Your task to perform on an android device: Is it going to rain this weekend? Image 0: 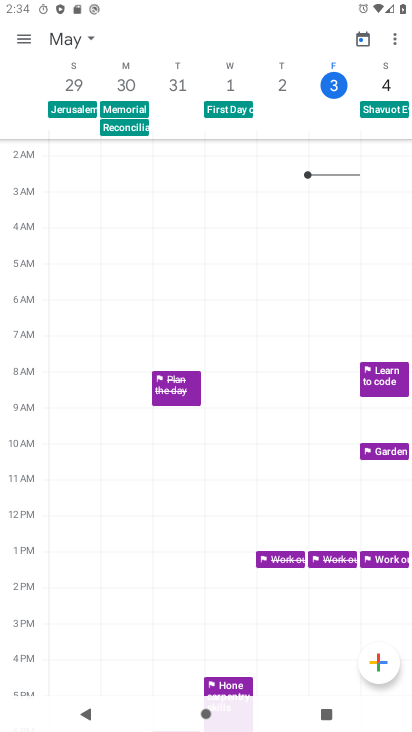
Step 0: press home button
Your task to perform on an android device: Is it going to rain this weekend? Image 1: 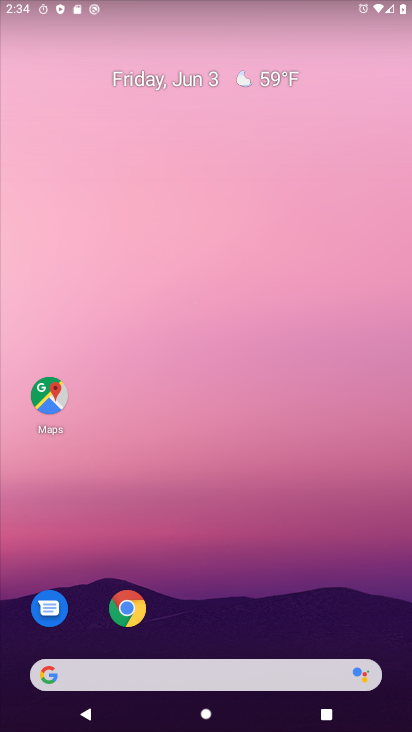
Step 1: click (268, 78)
Your task to perform on an android device: Is it going to rain this weekend? Image 2: 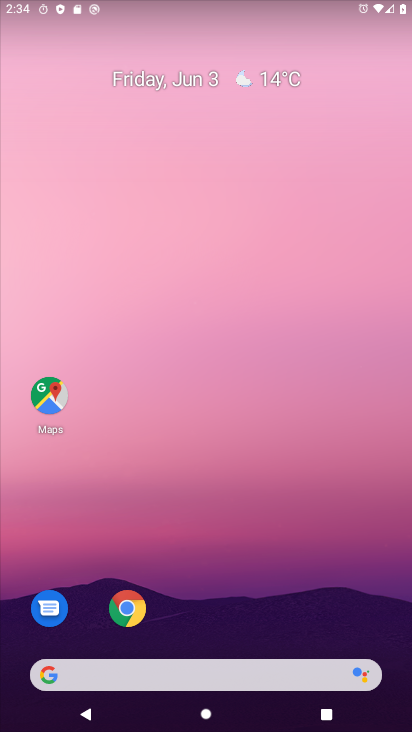
Step 2: click (275, 66)
Your task to perform on an android device: Is it going to rain this weekend? Image 3: 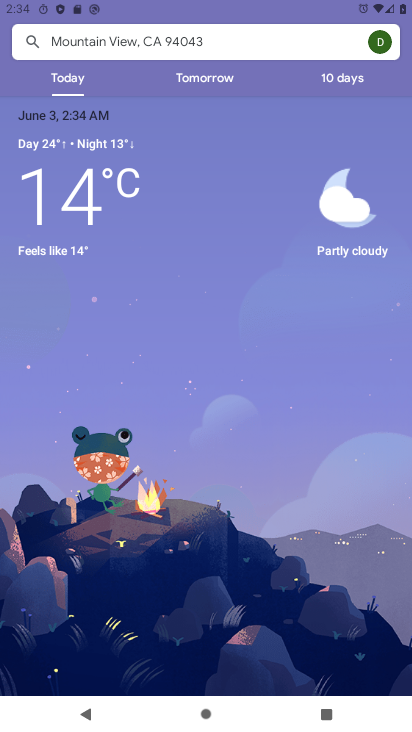
Step 3: click (339, 78)
Your task to perform on an android device: Is it going to rain this weekend? Image 4: 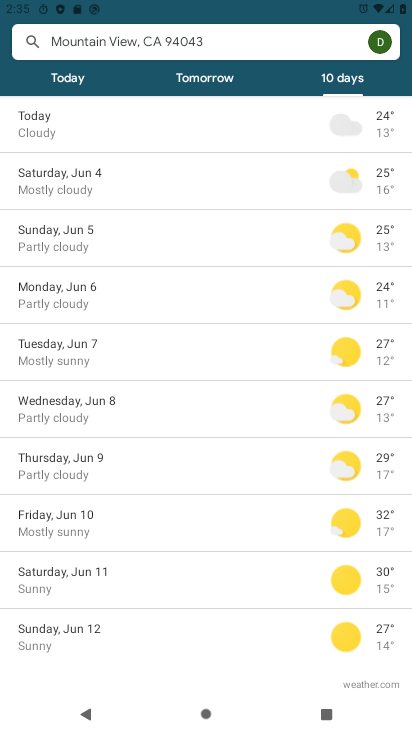
Step 4: task complete